Your task to perform on an android device: turn notification dots on Image 0: 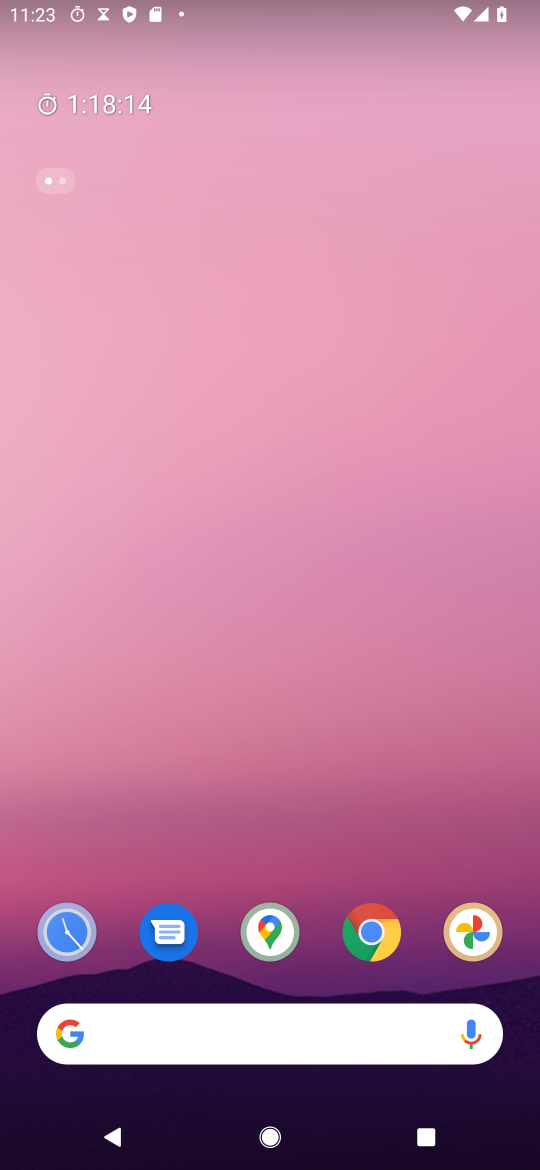
Step 0: drag from (325, 872) to (248, 23)
Your task to perform on an android device: turn notification dots on Image 1: 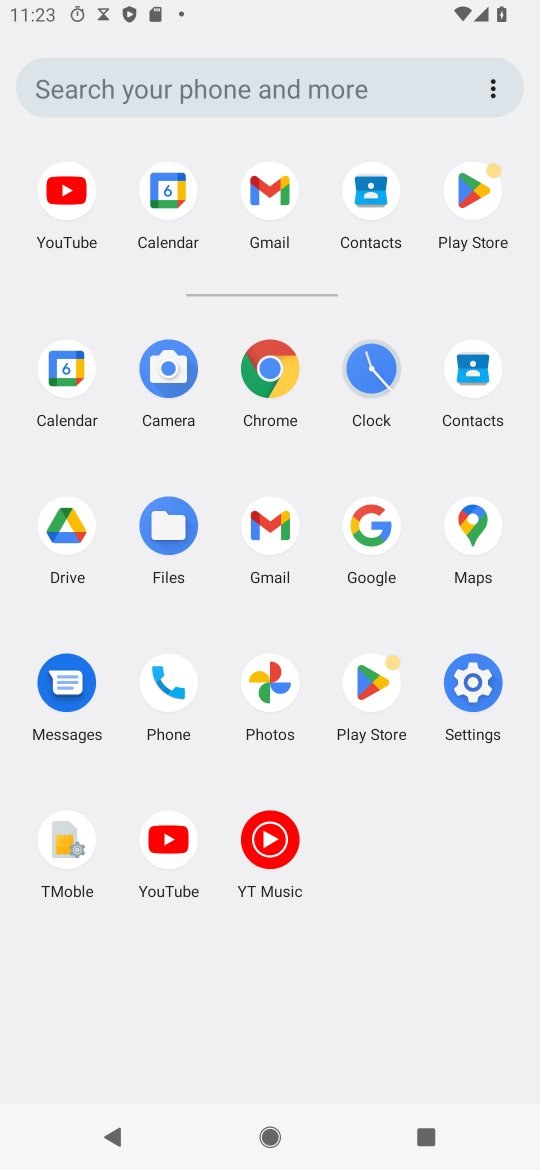
Step 1: click (477, 701)
Your task to perform on an android device: turn notification dots on Image 2: 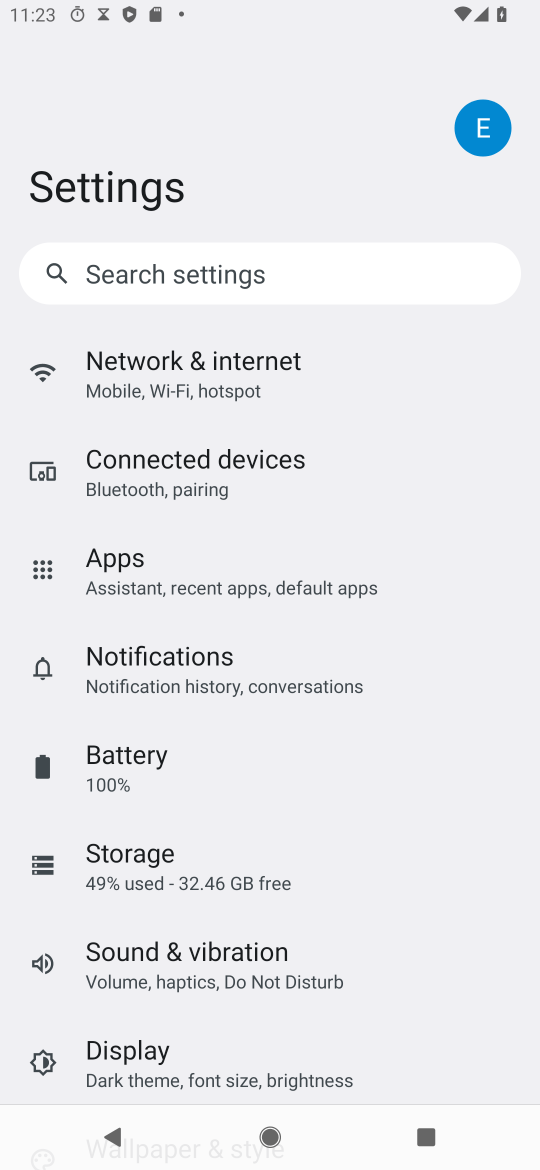
Step 2: click (251, 664)
Your task to perform on an android device: turn notification dots on Image 3: 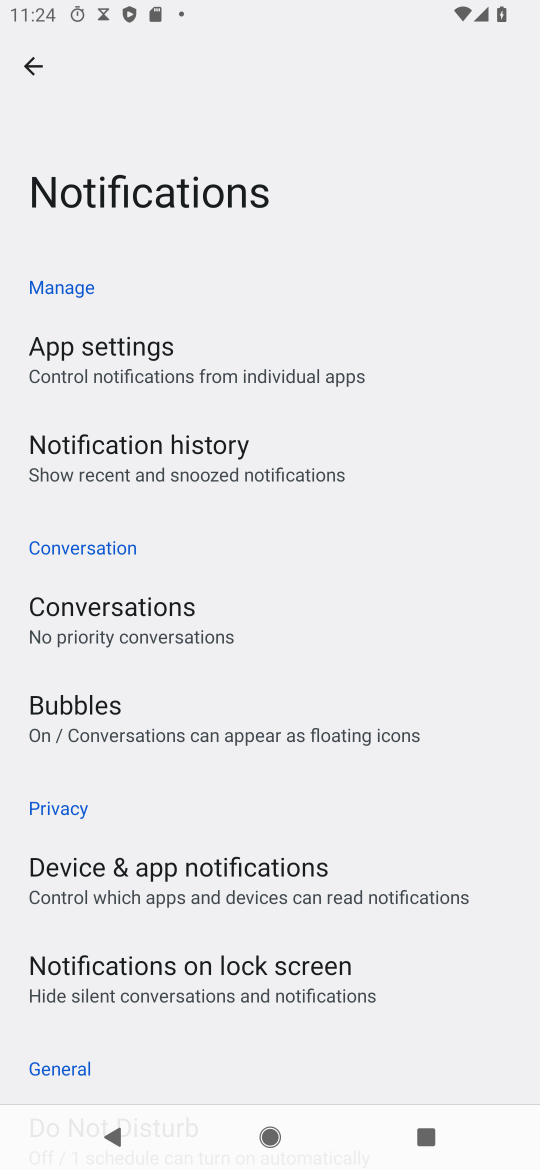
Step 3: task complete